Your task to perform on an android device: toggle wifi Image 0: 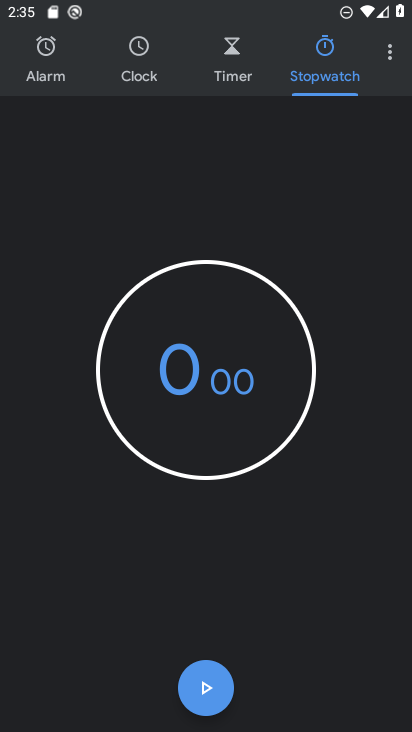
Step 0: press home button
Your task to perform on an android device: toggle wifi Image 1: 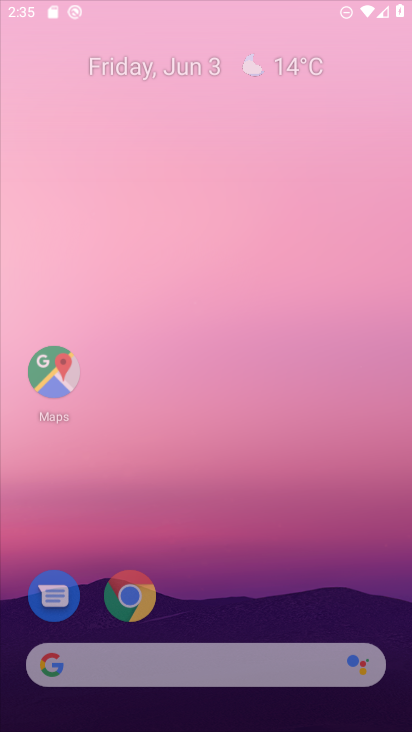
Step 1: drag from (192, 609) to (218, 19)
Your task to perform on an android device: toggle wifi Image 2: 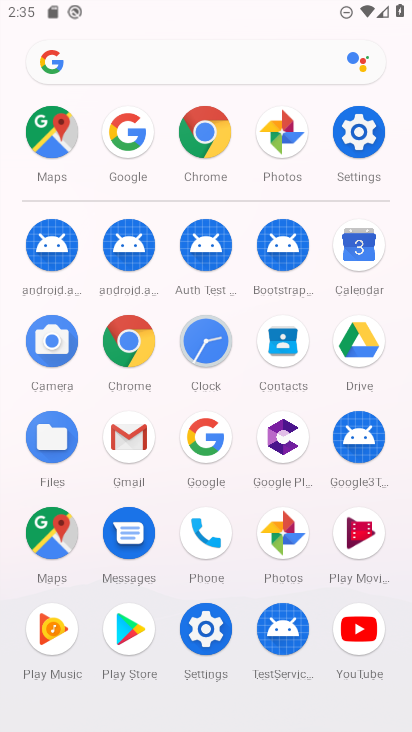
Step 2: click (353, 121)
Your task to perform on an android device: toggle wifi Image 3: 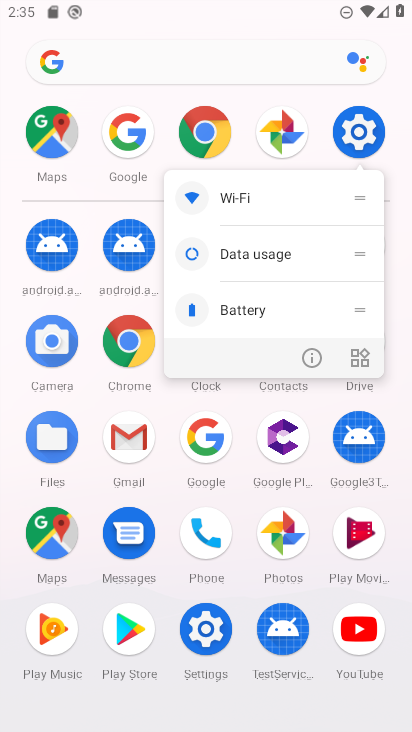
Step 3: click (253, 205)
Your task to perform on an android device: toggle wifi Image 4: 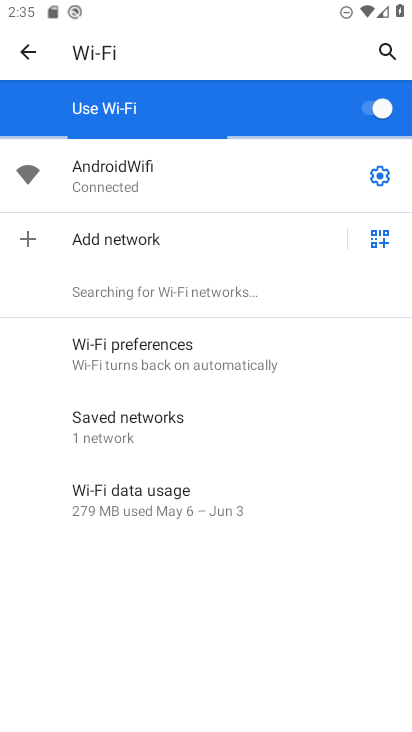
Step 4: click (376, 111)
Your task to perform on an android device: toggle wifi Image 5: 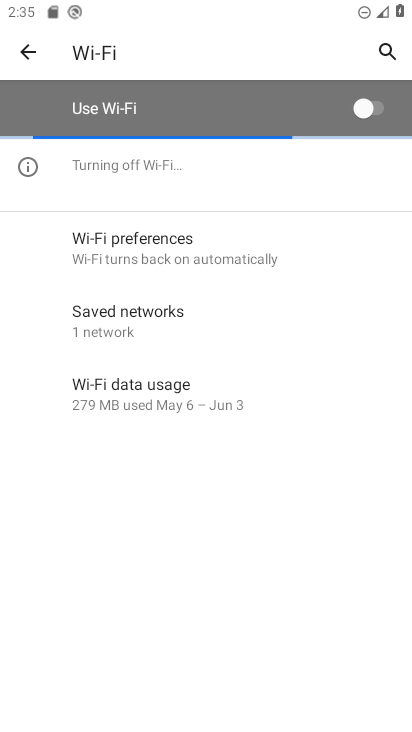
Step 5: task complete